Your task to perform on an android device: Open privacy settings Image 0: 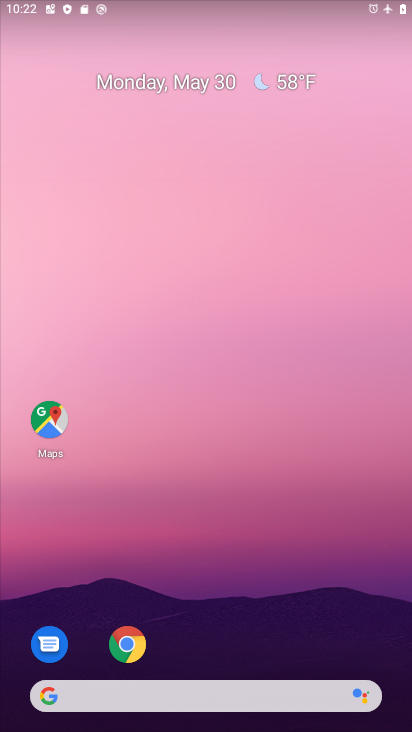
Step 0: drag from (401, 646) to (338, 69)
Your task to perform on an android device: Open privacy settings Image 1: 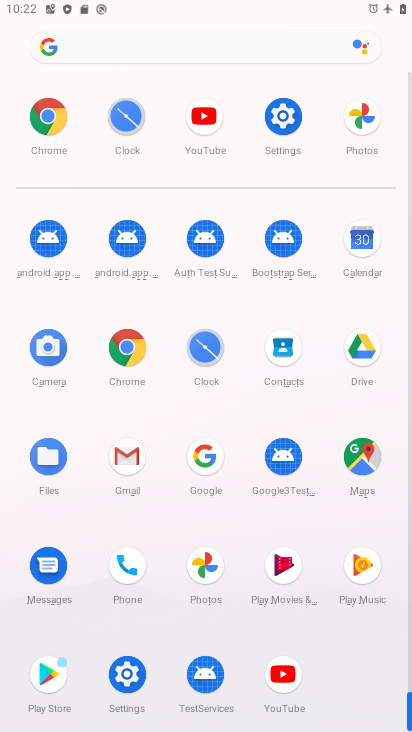
Step 1: click (130, 675)
Your task to perform on an android device: Open privacy settings Image 2: 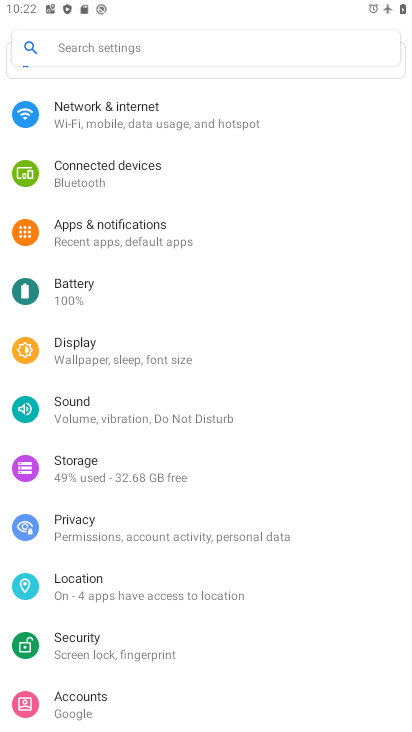
Step 2: click (84, 531)
Your task to perform on an android device: Open privacy settings Image 3: 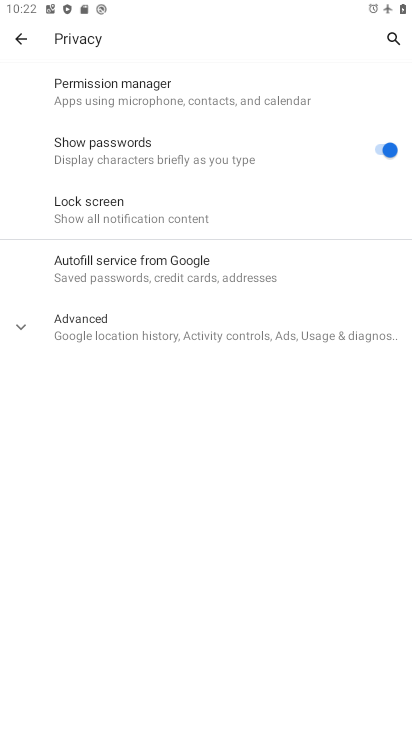
Step 3: click (24, 325)
Your task to perform on an android device: Open privacy settings Image 4: 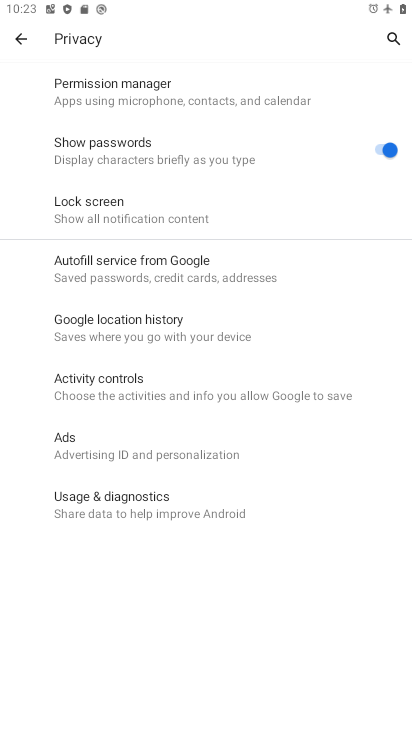
Step 4: task complete